Your task to perform on an android device: see tabs open on other devices in the chrome app Image 0: 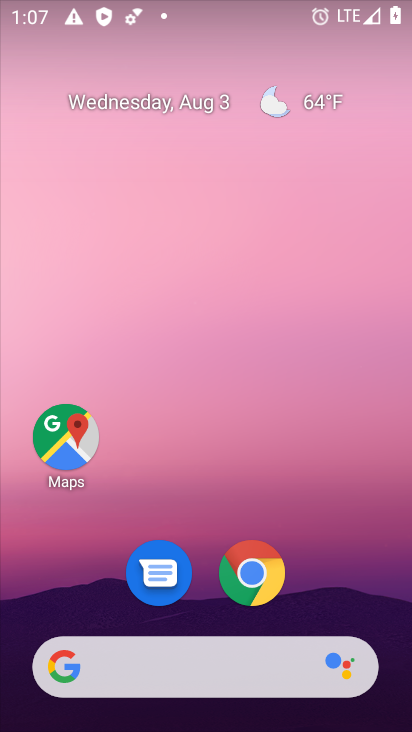
Step 0: drag from (222, 695) to (192, 47)
Your task to perform on an android device: see tabs open on other devices in the chrome app Image 1: 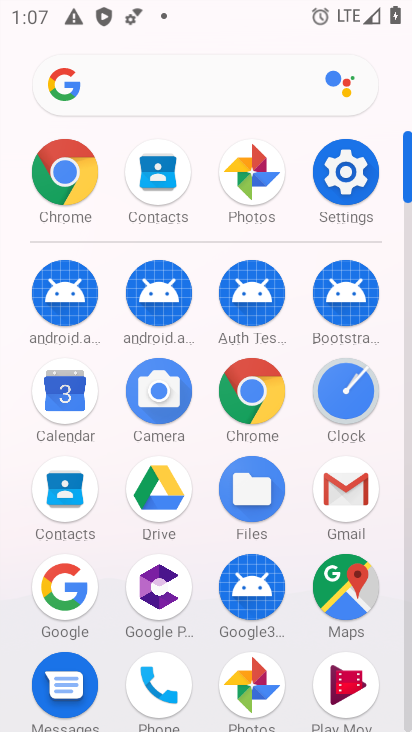
Step 1: click (251, 385)
Your task to perform on an android device: see tabs open on other devices in the chrome app Image 2: 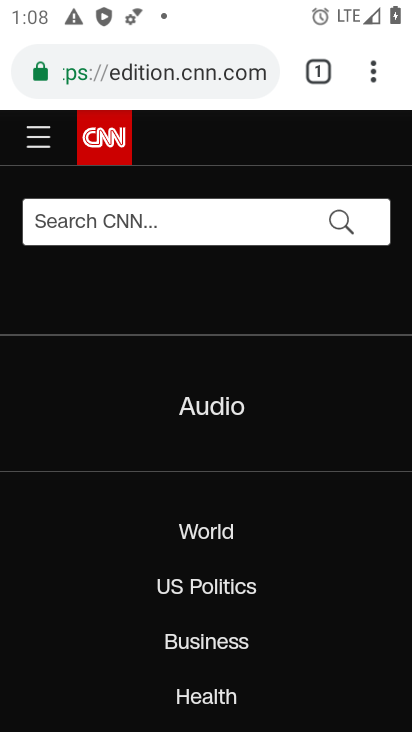
Step 2: task complete